Your task to perform on an android device: Open calendar and show me the first week of next month Image 0: 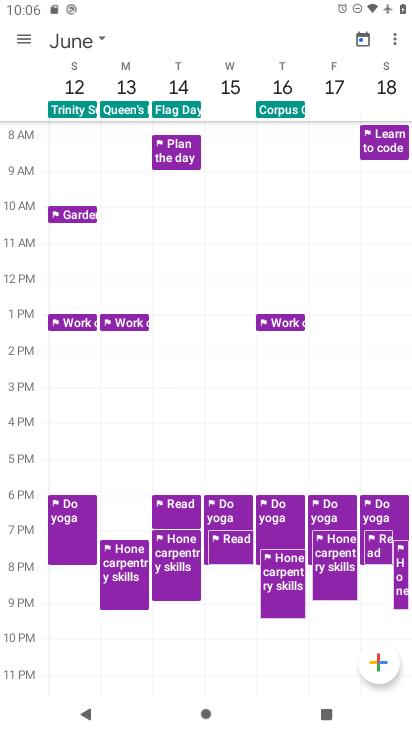
Step 0: press home button
Your task to perform on an android device: Open calendar and show me the first week of next month Image 1: 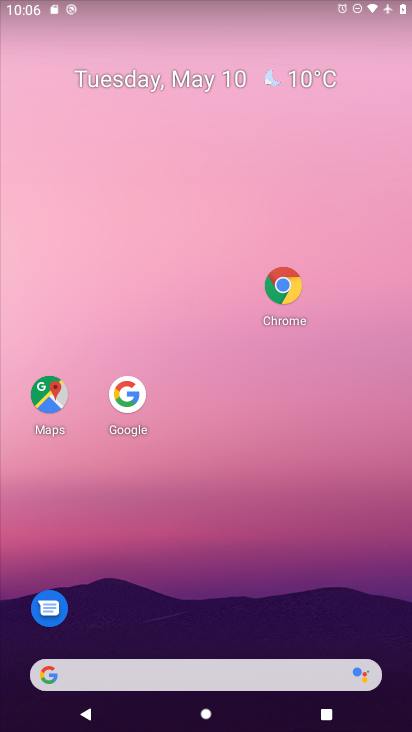
Step 1: drag from (151, 668) to (346, 113)
Your task to perform on an android device: Open calendar and show me the first week of next month Image 2: 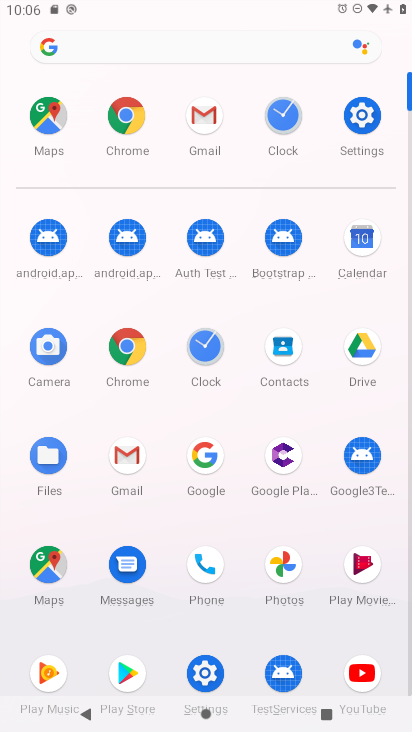
Step 2: click (366, 244)
Your task to perform on an android device: Open calendar and show me the first week of next month Image 3: 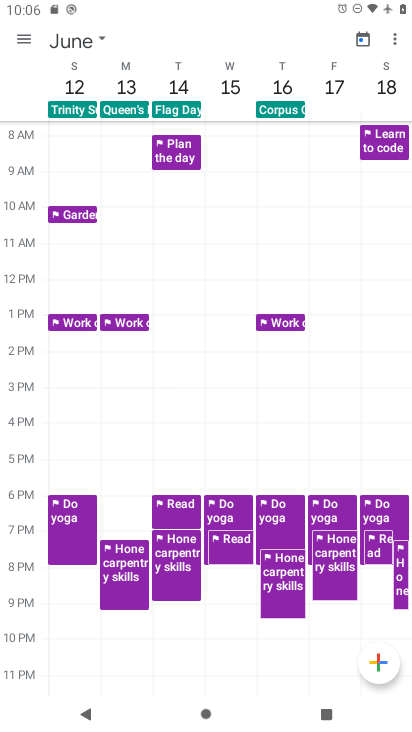
Step 3: click (76, 43)
Your task to perform on an android device: Open calendar and show me the first week of next month Image 4: 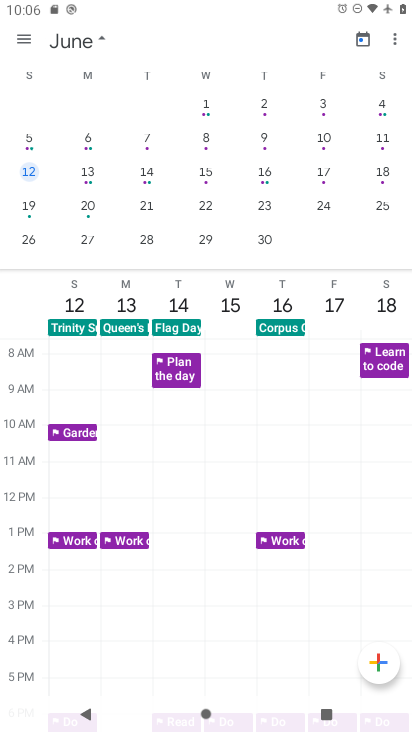
Step 4: click (208, 99)
Your task to perform on an android device: Open calendar and show me the first week of next month Image 5: 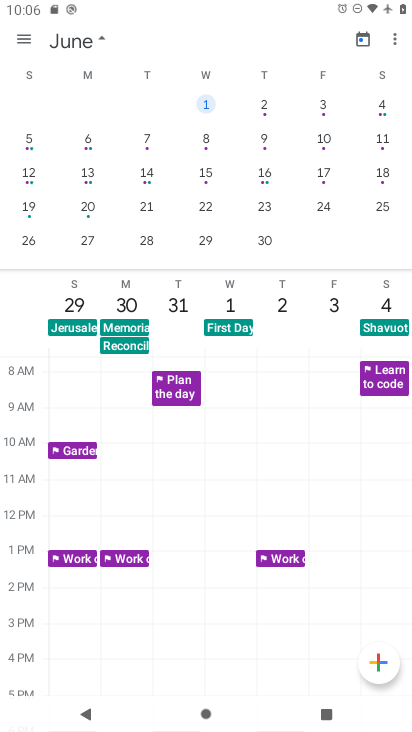
Step 5: click (23, 36)
Your task to perform on an android device: Open calendar and show me the first week of next month Image 6: 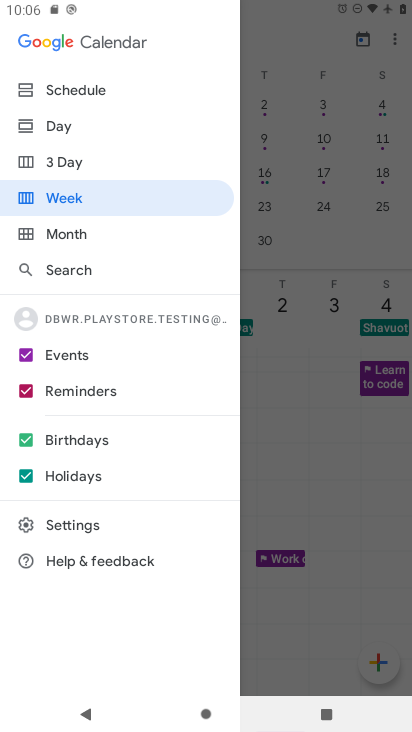
Step 6: click (63, 202)
Your task to perform on an android device: Open calendar and show me the first week of next month Image 7: 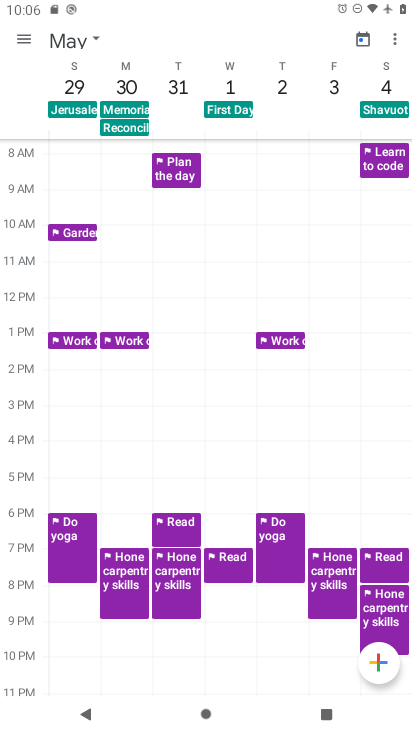
Step 7: task complete